Your task to perform on an android device: What's the weather? Image 0: 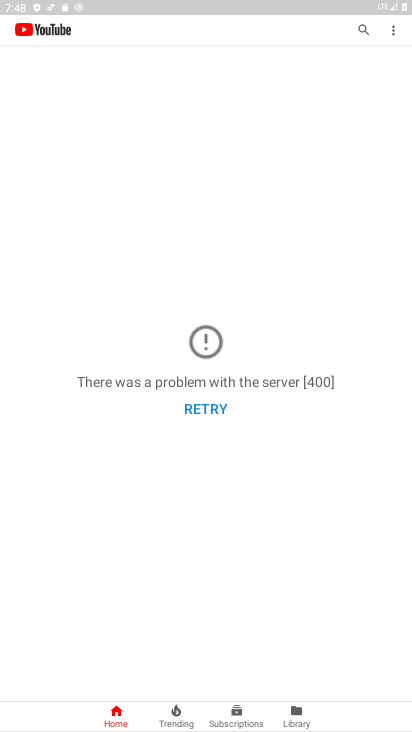
Step 0: press home button
Your task to perform on an android device: What's the weather? Image 1: 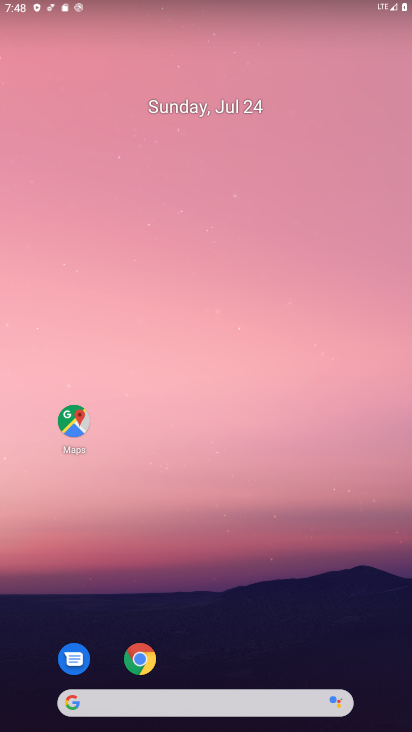
Step 1: drag from (224, 731) to (218, 326)
Your task to perform on an android device: What's the weather? Image 2: 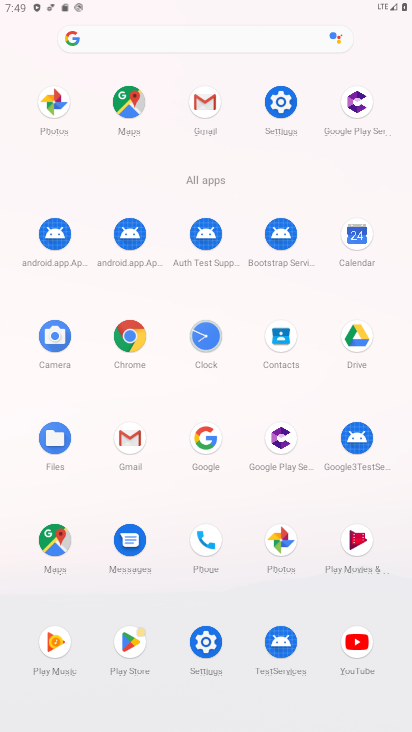
Step 2: click (204, 441)
Your task to perform on an android device: What's the weather? Image 3: 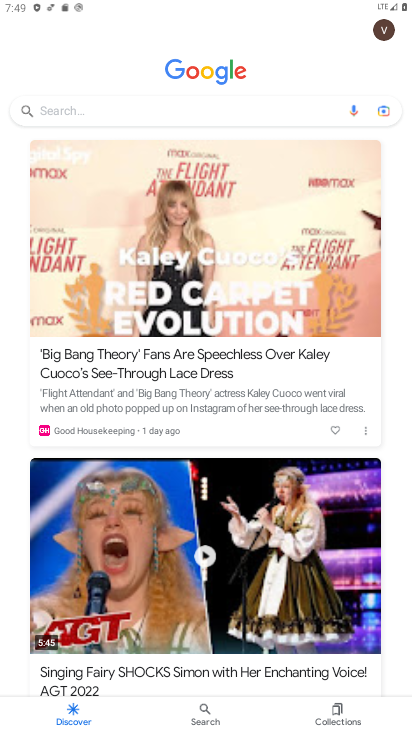
Step 3: click (178, 113)
Your task to perform on an android device: What's the weather? Image 4: 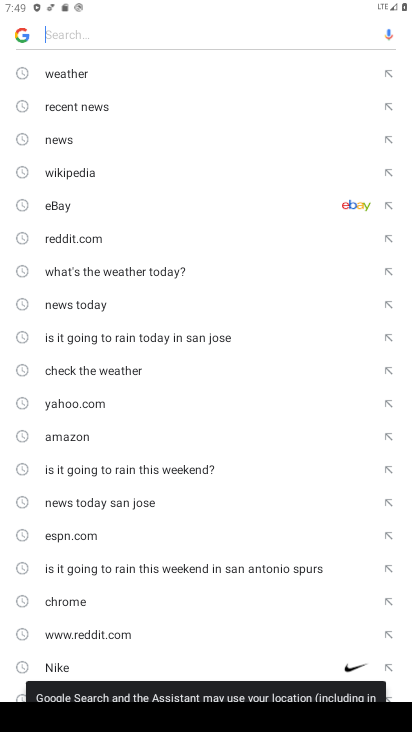
Step 4: click (62, 74)
Your task to perform on an android device: What's the weather? Image 5: 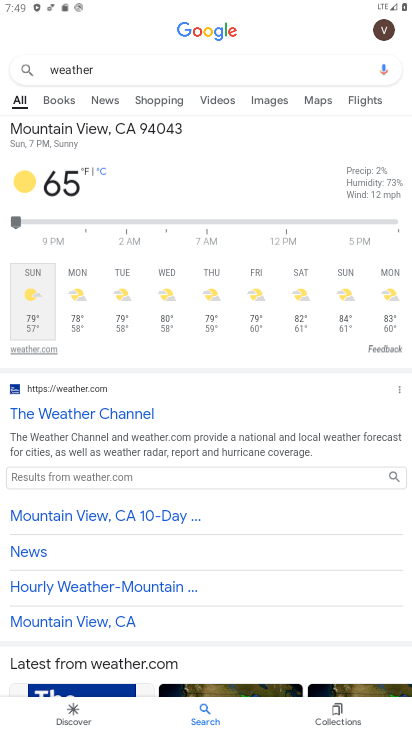
Step 5: task complete